Your task to perform on an android device: see sites visited before in the chrome app Image 0: 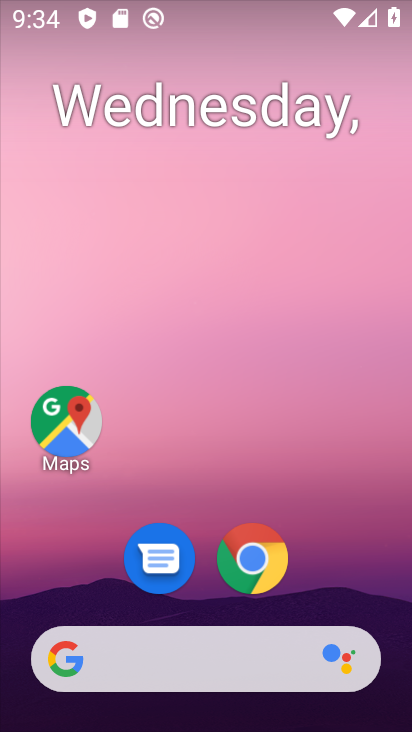
Step 0: click (247, 566)
Your task to perform on an android device: see sites visited before in the chrome app Image 1: 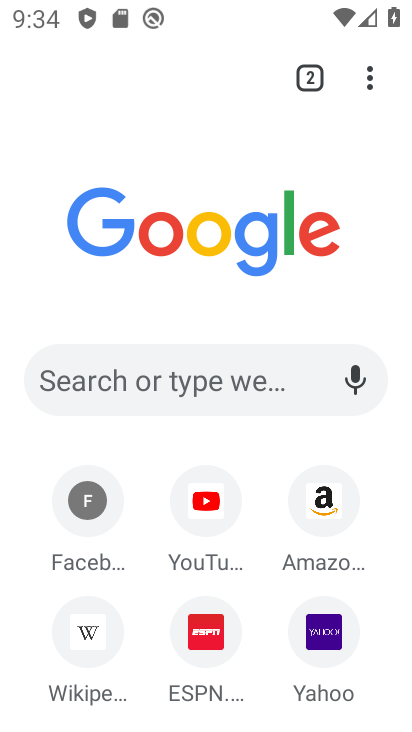
Step 1: task complete